Your task to perform on an android device: turn on showing notifications on the lock screen Image 0: 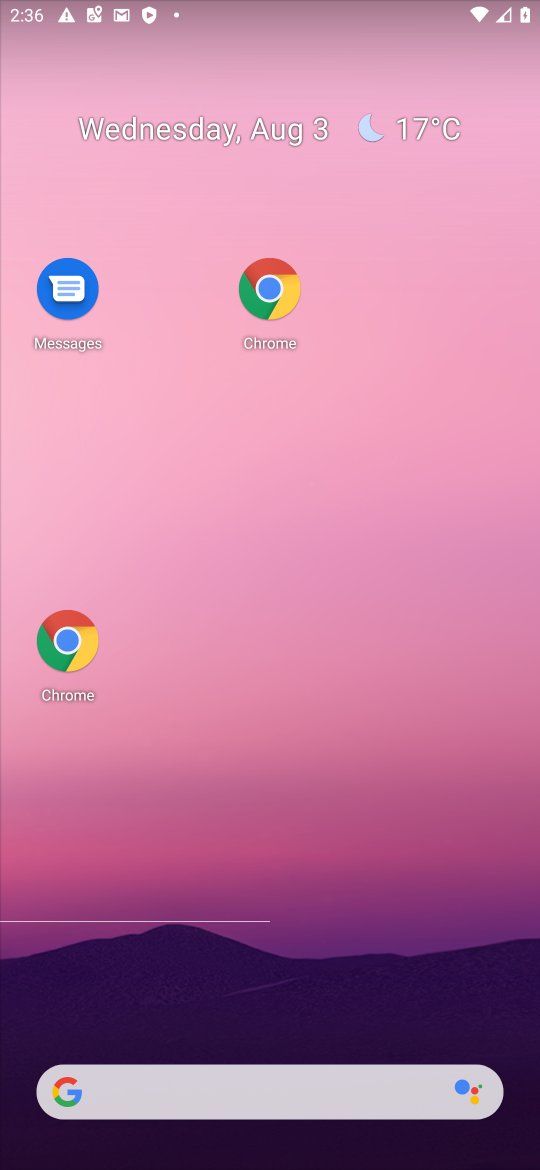
Step 0: drag from (372, 1017) to (298, 278)
Your task to perform on an android device: turn on showing notifications on the lock screen Image 1: 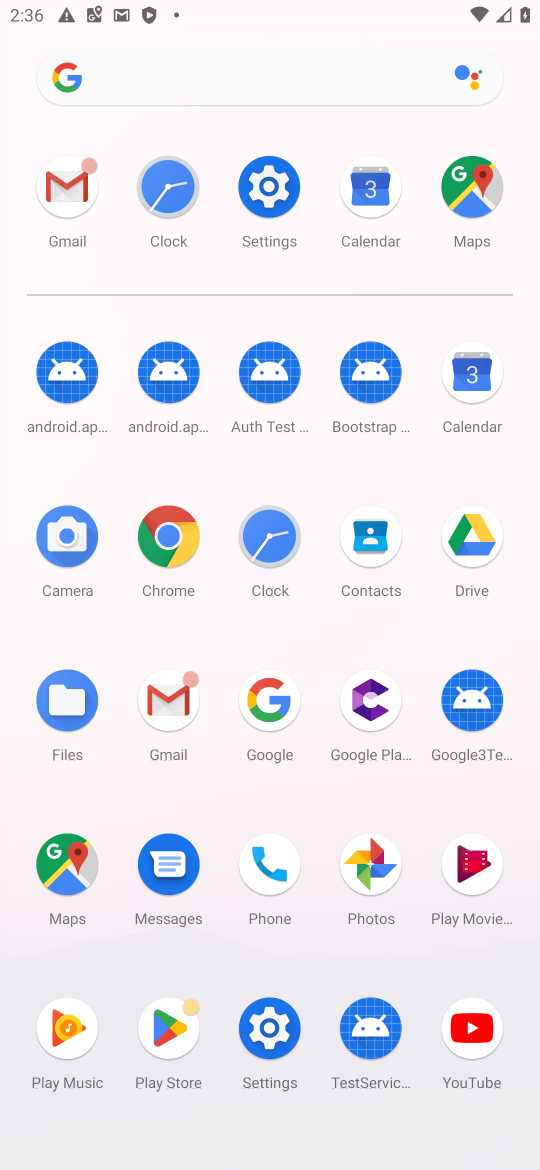
Step 1: click (256, 217)
Your task to perform on an android device: turn on showing notifications on the lock screen Image 2: 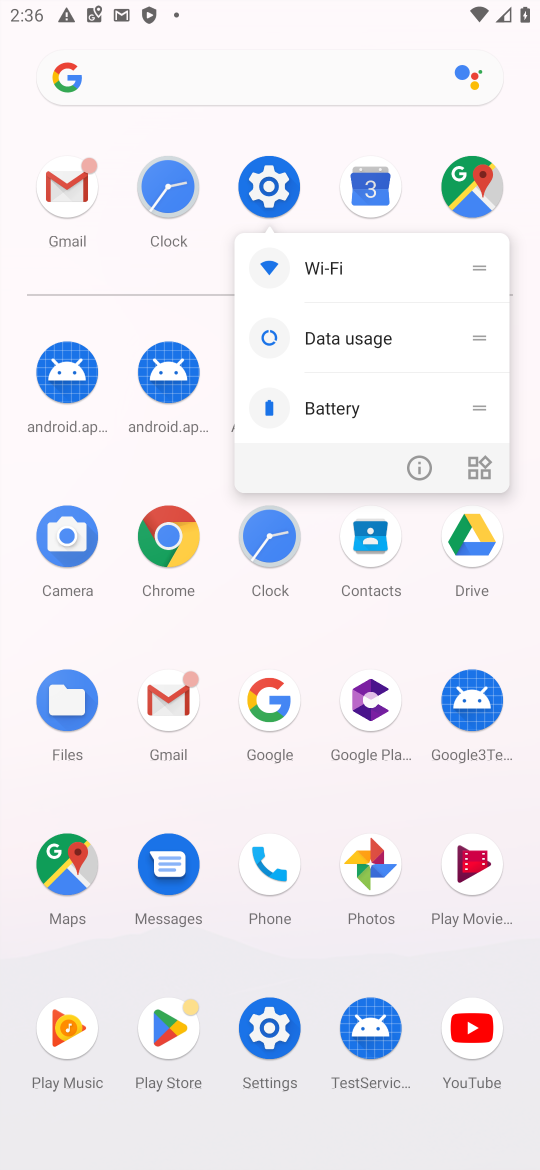
Step 2: click (256, 217)
Your task to perform on an android device: turn on showing notifications on the lock screen Image 3: 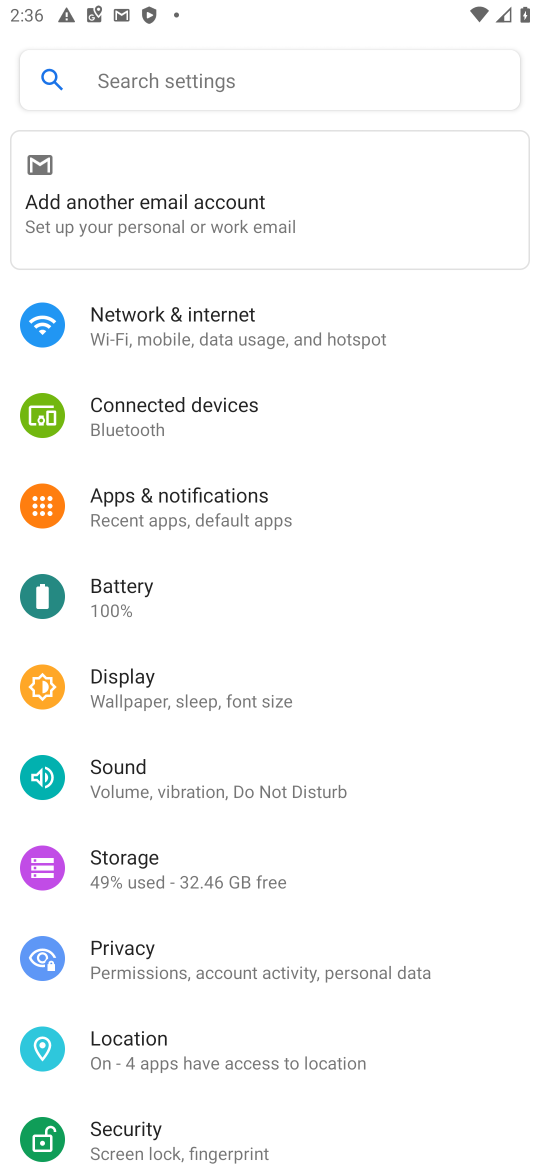
Step 3: click (195, 479)
Your task to perform on an android device: turn on showing notifications on the lock screen Image 4: 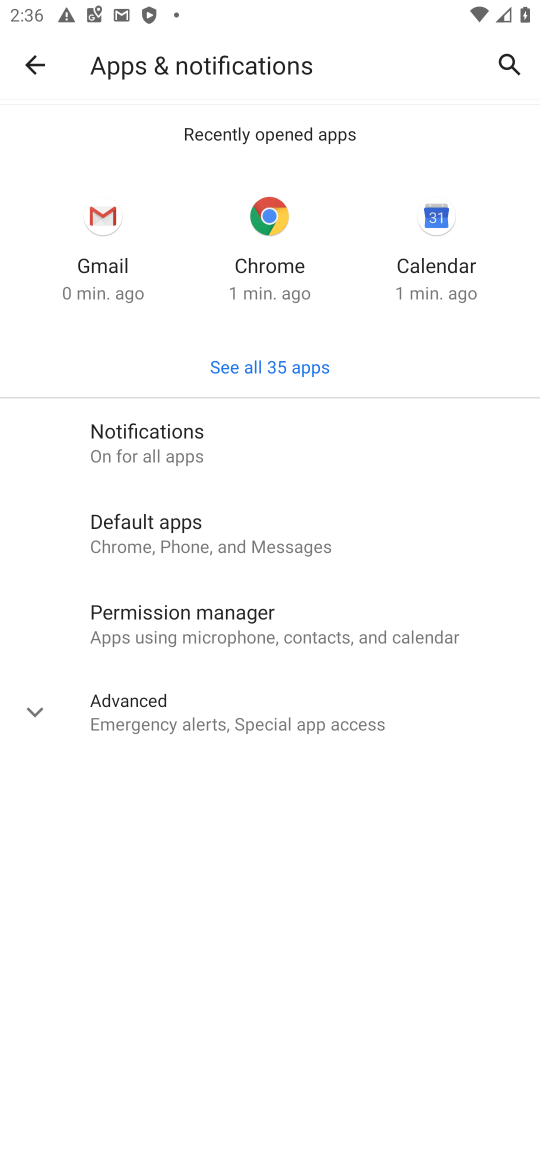
Step 4: click (165, 440)
Your task to perform on an android device: turn on showing notifications on the lock screen Image 5: 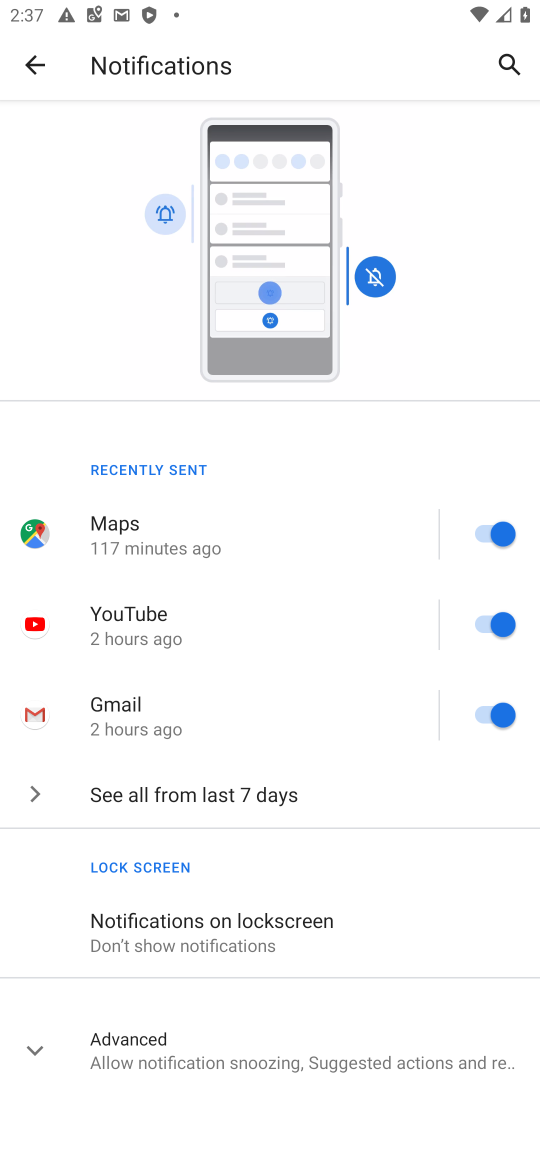
Step 5: task complete